Your task to perform on an android device: change the clock display to digital Image 0: 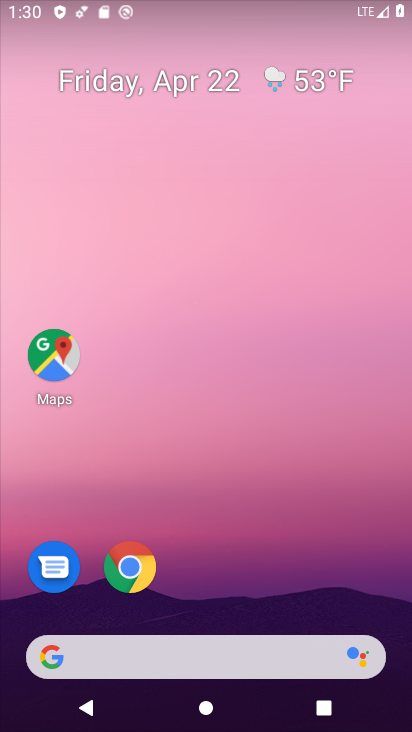
Step 0: drag from (347, 564) to (292, 96)
Your task to perform on an android device: change the clock display to digital Image 1: 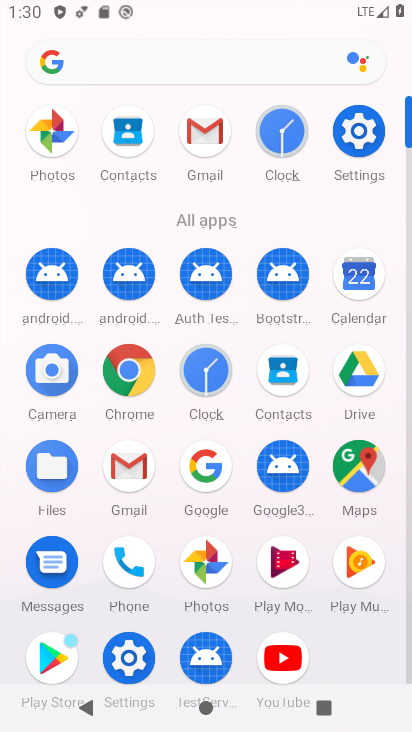
Step 1: click (200, 369)
Your task to perform on an android device: change the clock display to digital Image 2: 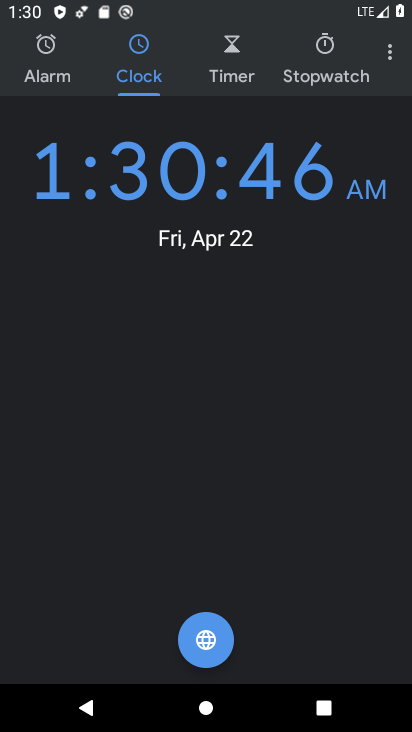
Step 2: click (386, 50)
Your task to perform on an android device: change the clock display to digital Image 3: 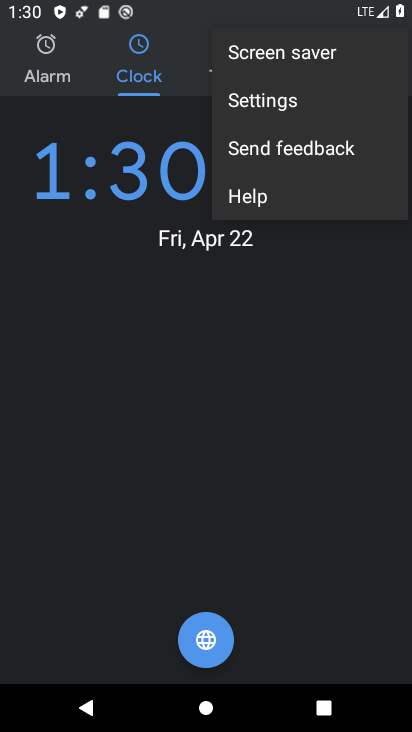
Step 3: click (251, 96)
Your task to perform on an android device: change the clock display to digital Image 4: 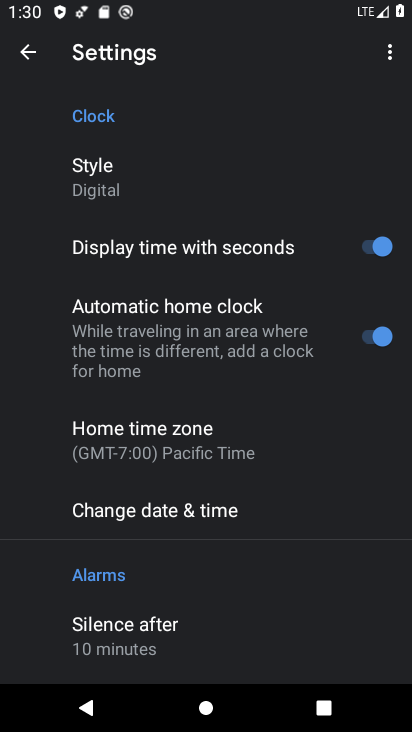
Step 4: task complete